Your task to perform on an android device: Search for vegetarian restaurants on Maps Image 0: 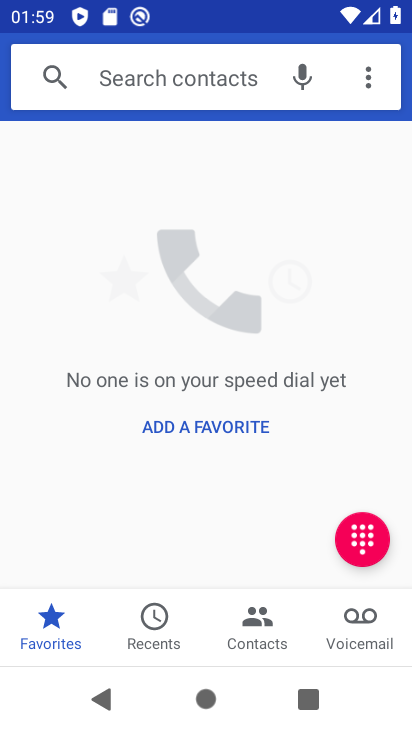
Step 0: press home button
Your task to perform on an android device: Search for vegetarian restaurants on Maps Image 1: 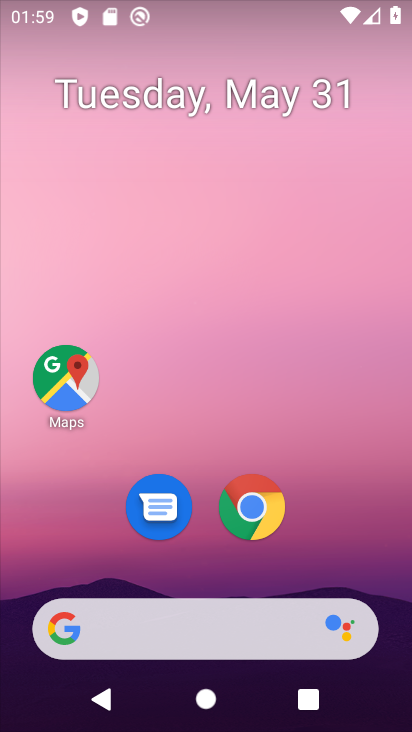
Step 1: click (63, 391)
Your task to perform on an android device: Search for vegetarian restaurants on Maps Image 2: 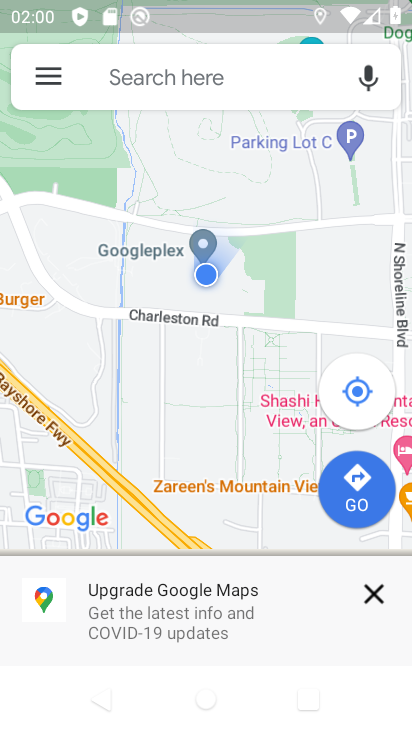
Step 2: click (128, 84)
Your task to perform on an android device: Search for vegetarian restaurants on Maps Image 3: 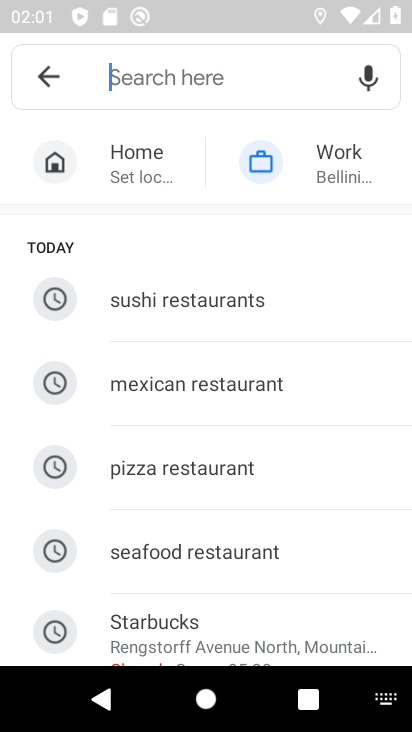
Step 3: drag from (149, 574) to (144, 203)
Your task to perform on an android device: Search for vegetarian restaurants on Maps Image 4: 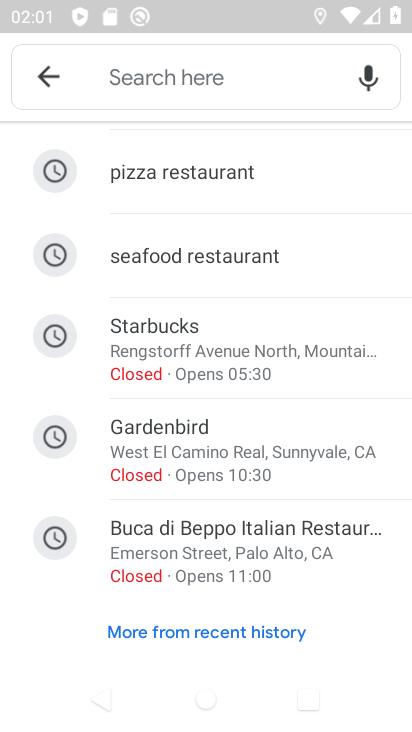
Step 4: click (154, 85)
Your task to perform on an android device: Search for vegetarian restaurants on Maps Image 5: 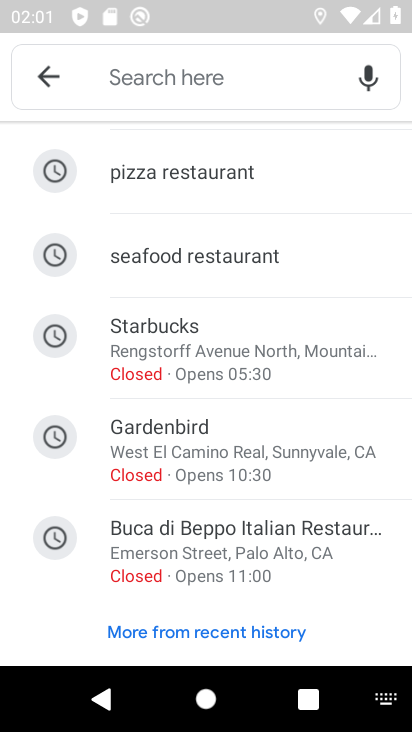
Step 5: type "vegeterian restaurany"
Your task to perform on an android device: Search for vegetarian restaurants on Maps Image 6: 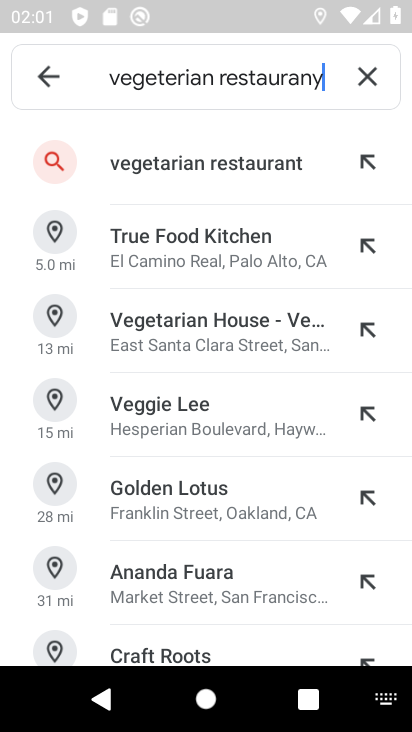
Step 6: click (66, 167)
Your task to perform on an android device: Search for vegetarian restaurants on Maps Image 7: 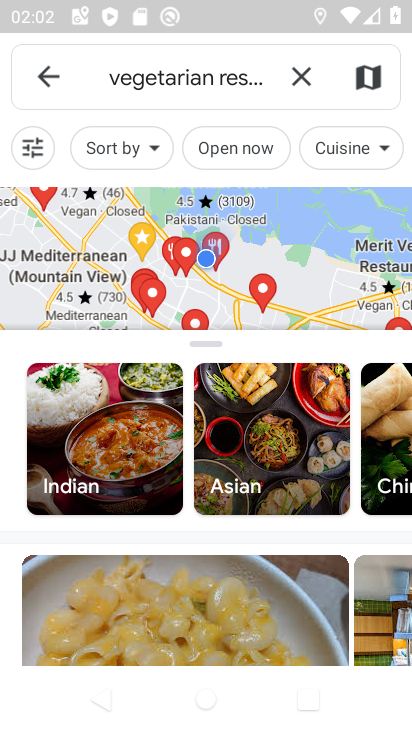
Step 7: task complete